Your task to perform on an android device: snooze an email in the gmail app Image 0: 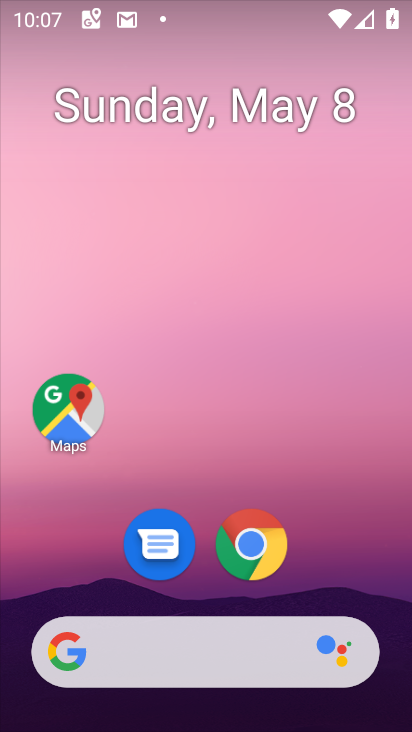
Step 0: drag from (335, 577) to (337, 18)
Your task to perform on an android device: snooze an email in the gmail app Image 1: 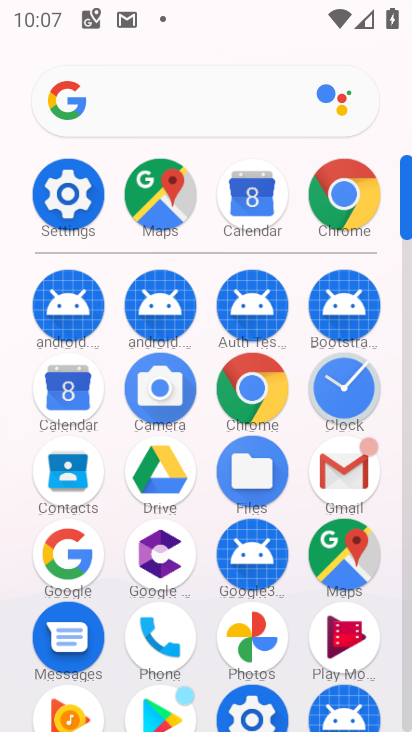
Step 1: click (353, 474)
Your task to perform on an android device: snooze an email in the gmail app Image 2: 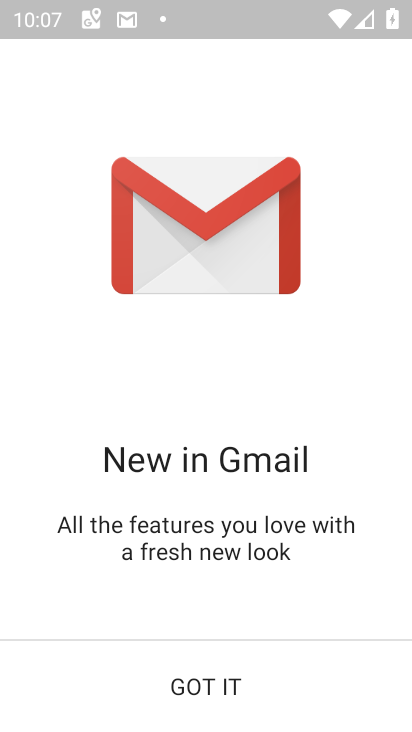
Step 2: click (240, 687)
Your task to perform on an android device: snooze an email in the gmail app Image 3: 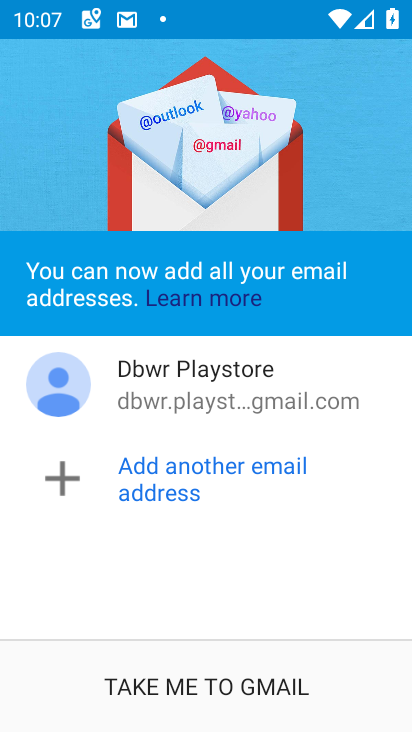
Step 3: click (240, 687)
Your task to perform on an android device: snooze an email in the gmail app Image 4: 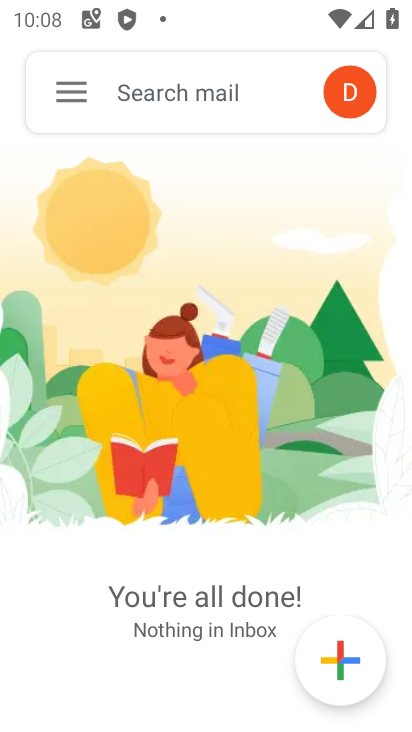
Step 4: click (88, 105)
Your task to perform on an android device: snooze an email in the gmail app Image 5: 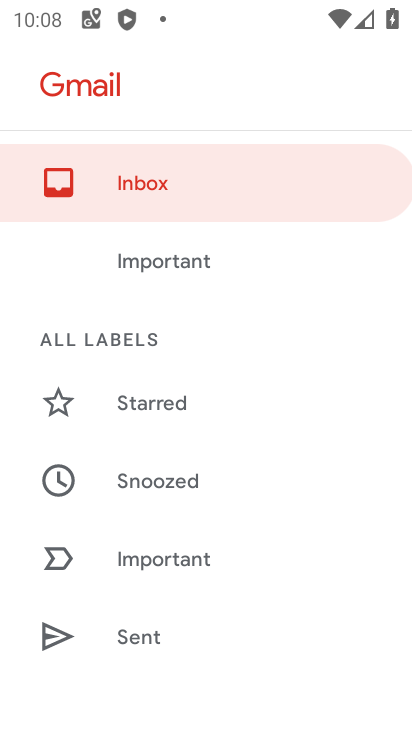
Step 5: drag from (107, 549) to (130, 328)
Your task to perform on an android device: snooze an email in the gmail app Image 6: 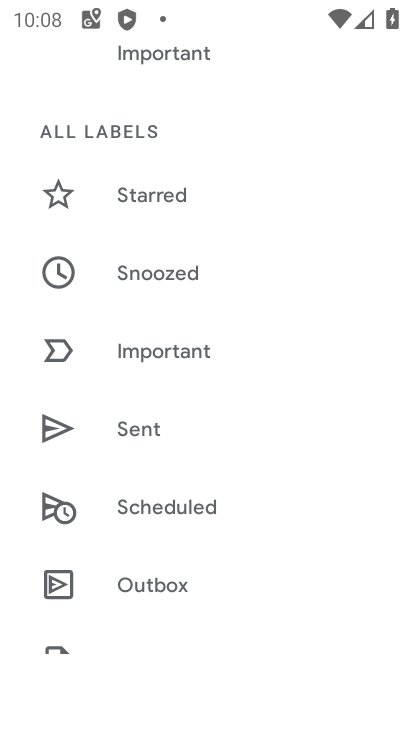
Step 6: drag from (123, 517) to (100, 236)
Your task to perform on an android device: snooze an email in the gmail app Image 7: 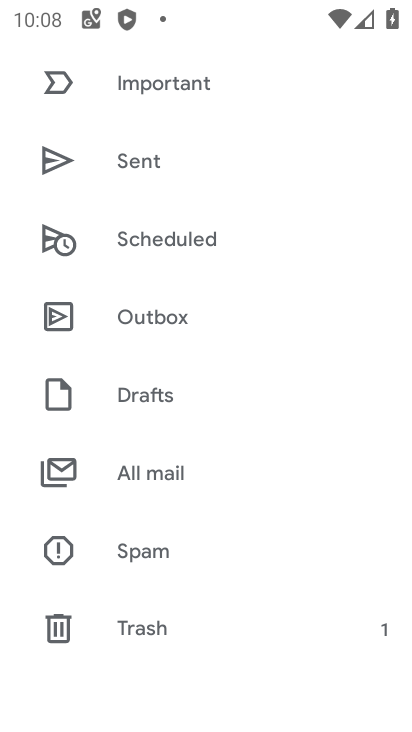
Step 7: drag from (194, 596) to (98, 240)
Your task to perform on an android device: snooze an email in the gmail app Image 8: 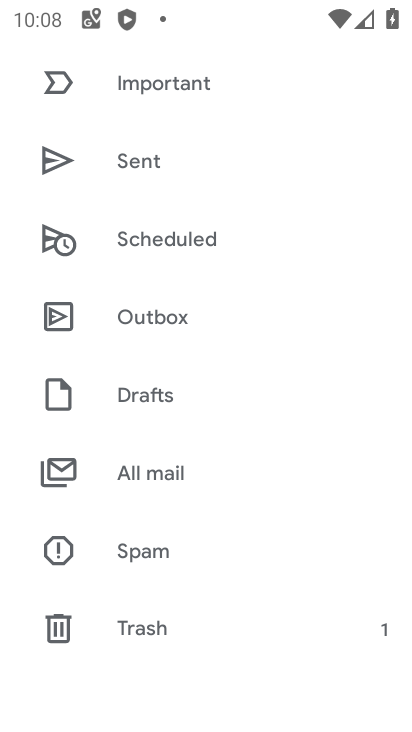
Step 8: drag from (249, 613) to (225, 472)
Your task to perform on an android device: snooze an email in the gmail app Image 9: 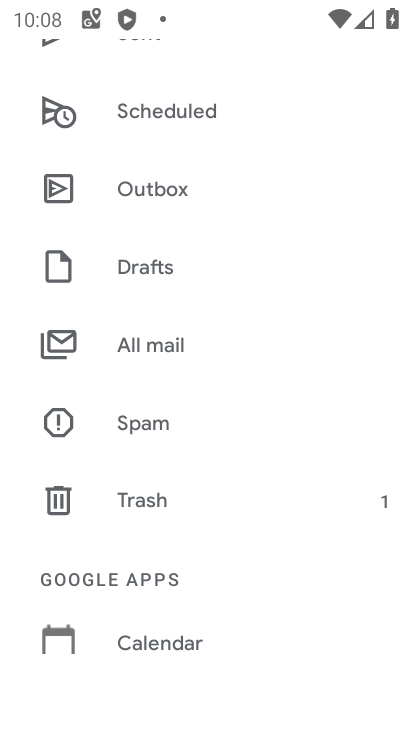
Step 9: click (225, 472)
Your task to perform on an android device: snooze an email in the gmail app Image 10: 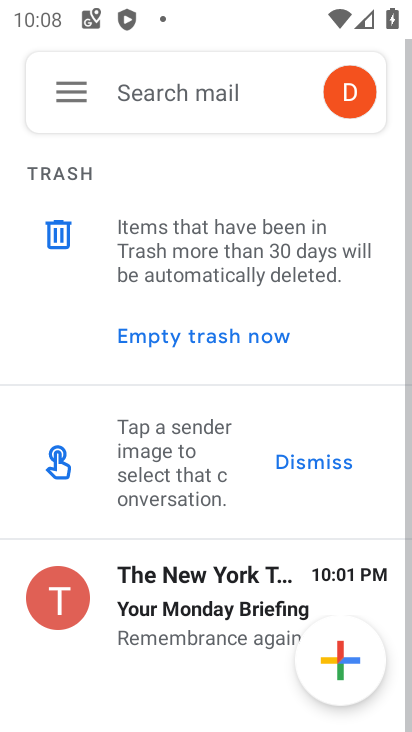
Step 10: click (84, 109)
Your task to perform on an android device: snooze an email in the gmail app Image 11: 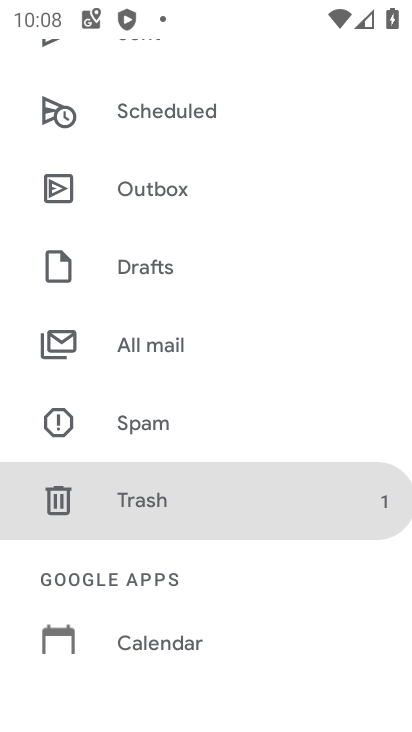
Step 11: drag from (105, 446) to (95, 284)
Your task to perform on an android device: snooze an email in the gmail app Image 12: 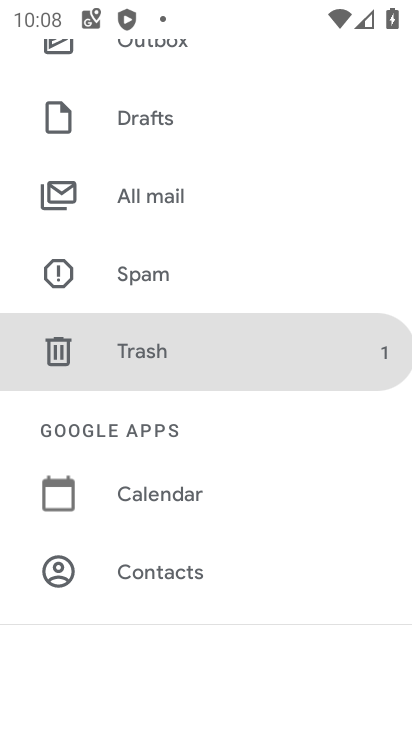
Step 12: drag from (189, 634) to (164, 466)
Your task to perform on an android device: snooze an email in the gmail app Image 13: 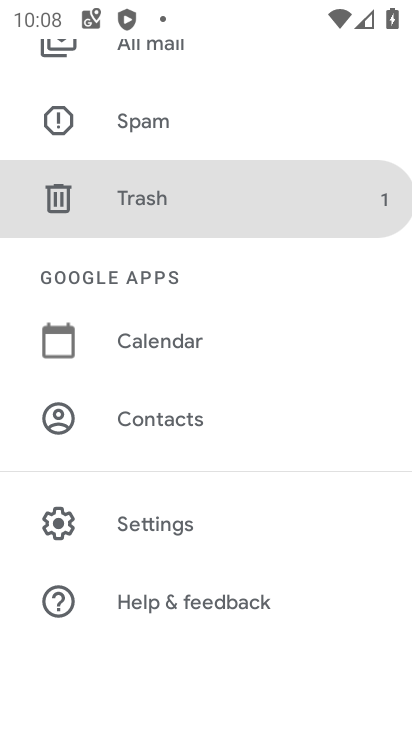
Step 13: drag from (138, 297) to (285, 728)
Your task to perform on an android device: snooze an email in the gmail app Image 14: 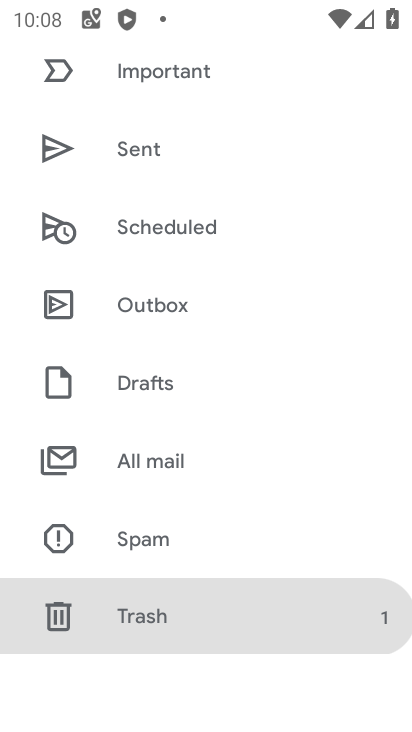
Step 14: drag from (210, 241) to (248, 559)
Your task to perform on an android device: snooze an email in the gmail app Image 15: 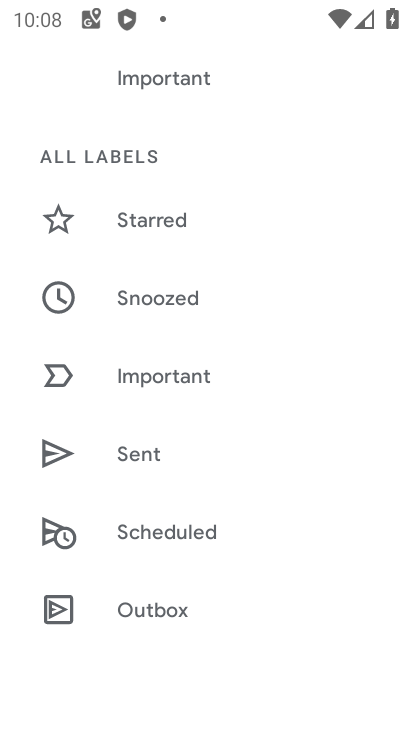
Step 15: drag from (166, 269) to (152, 486)
Your task to perform on an android device: snooze an email in the gmail app Image 16: 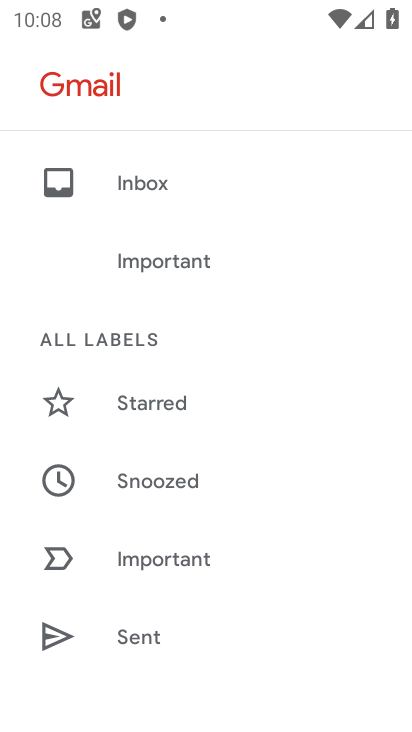
Step 16: click (156, 162)
Your task to perform on an android device: snooze an email in the gmail app Image 17: 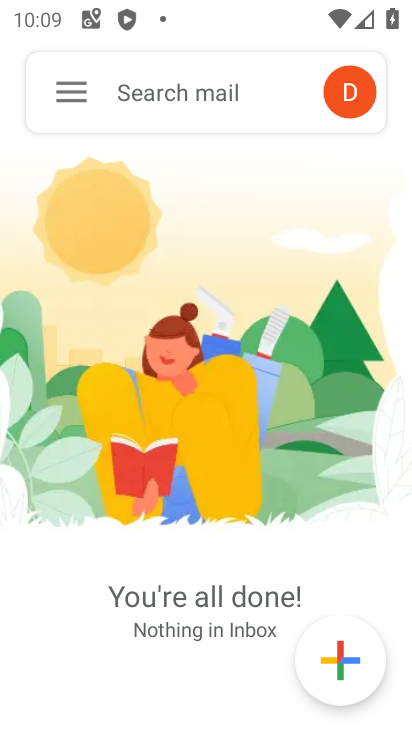
Step 17: click (77, 91)
Your task to perform on an android device: snooze an email in the gmail app Image 18: 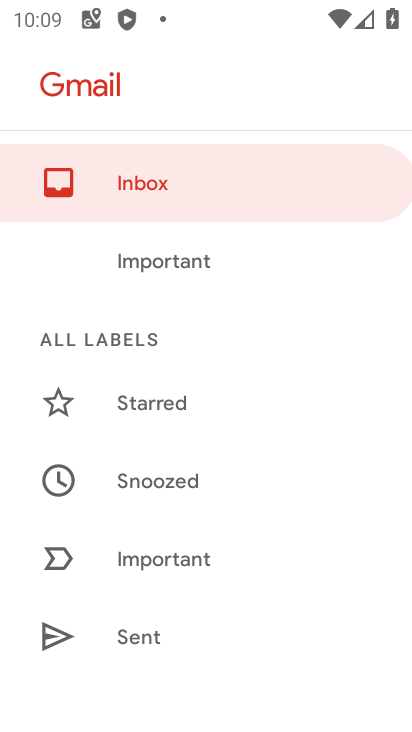
Step 18: task complete